Your task to perform on an android device: turn smart compose on in the gmail app Image 0: 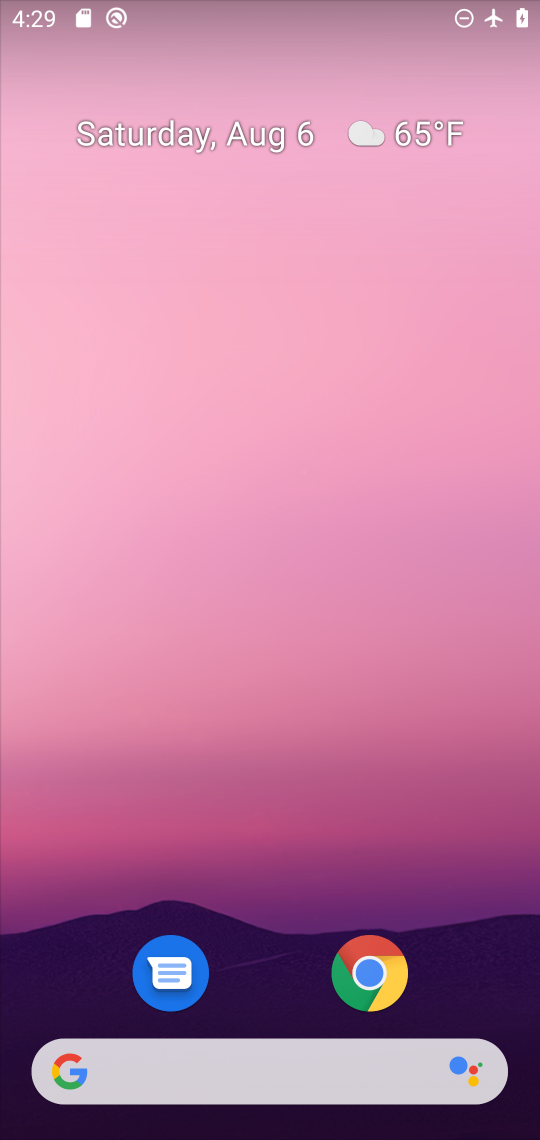
Step 0: drag from (309, 799) to (286, 66)
Your task to perform on an android device: turn smart compose on in the gmail app Image 1: 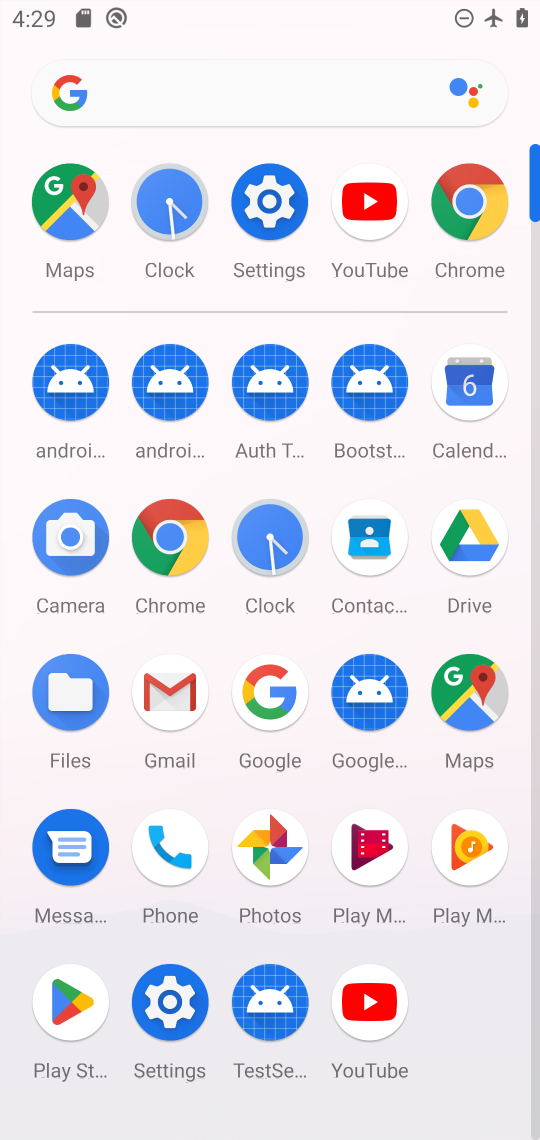
Step 1: click (181, 683)
Your task to perform on an android device: turn smart compose on in the gmail app Image 2: 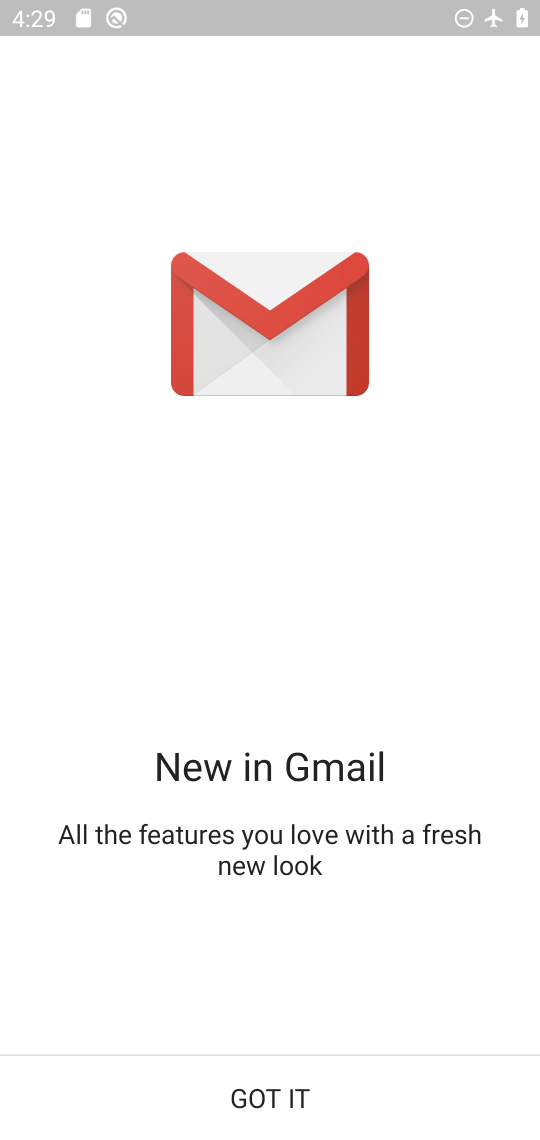
Step 2: click (283, 1093)
Your task to perform on an android device: turn smart compose on in the gmail app Image 3: 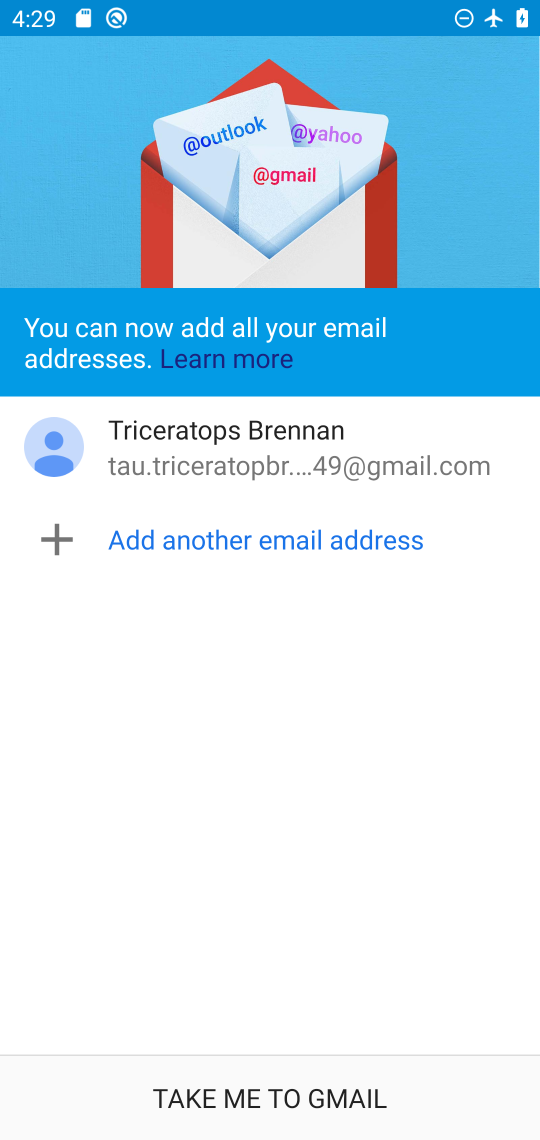
Step 3: click (282, 1084)
Your task to perform on an android device: turn smart compose on in the gmail app Image 4: 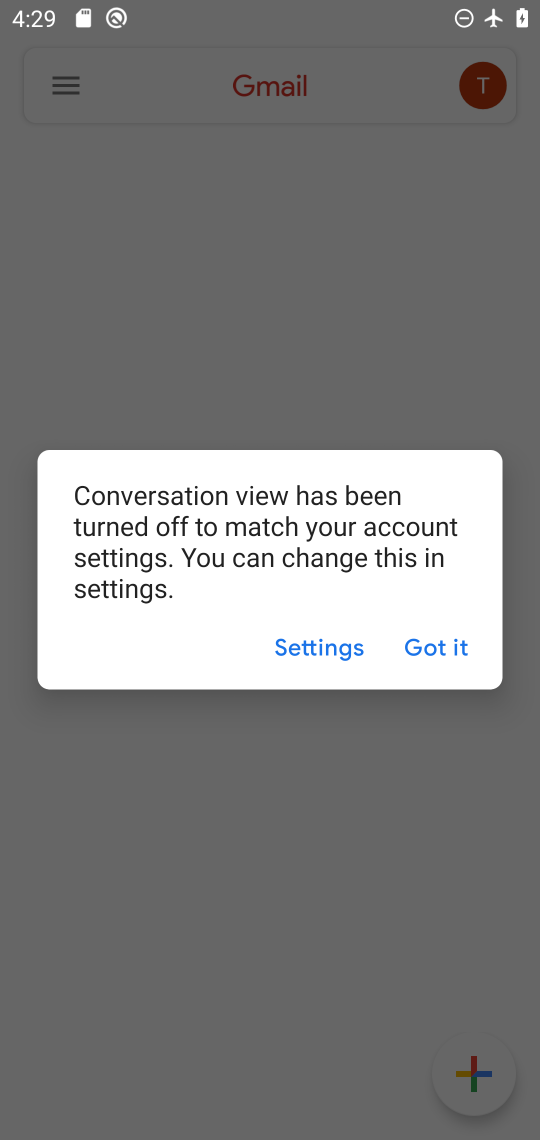
Step 4: click (429, 629)
Your task to perform on an android device: turn smart compose on in the gmail app Image 5: 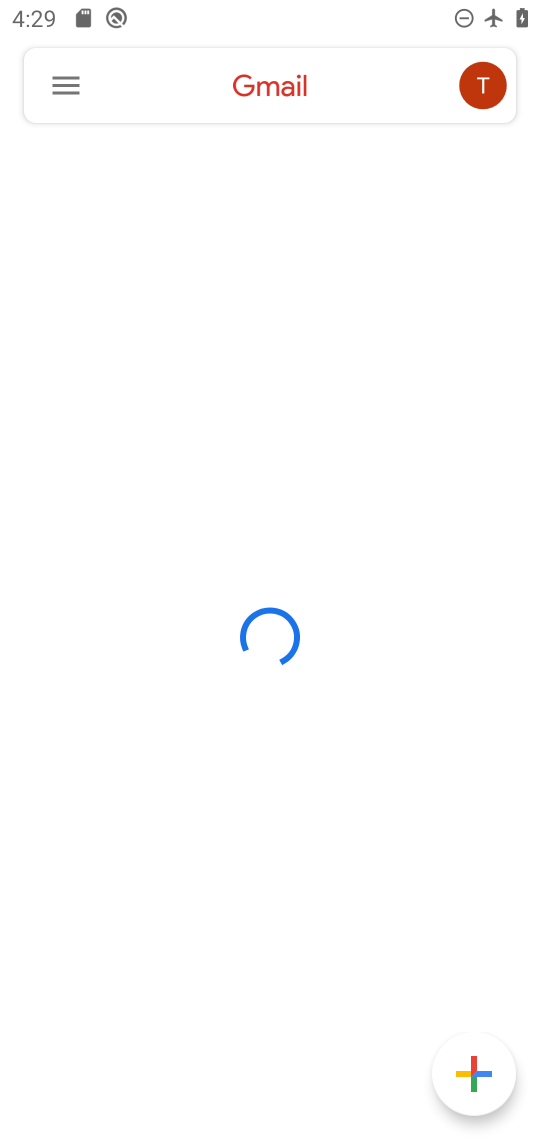
Step 5: click (65, 65)
Your task to perform on an android device: turn smart compose on in the gmail app Image 6: 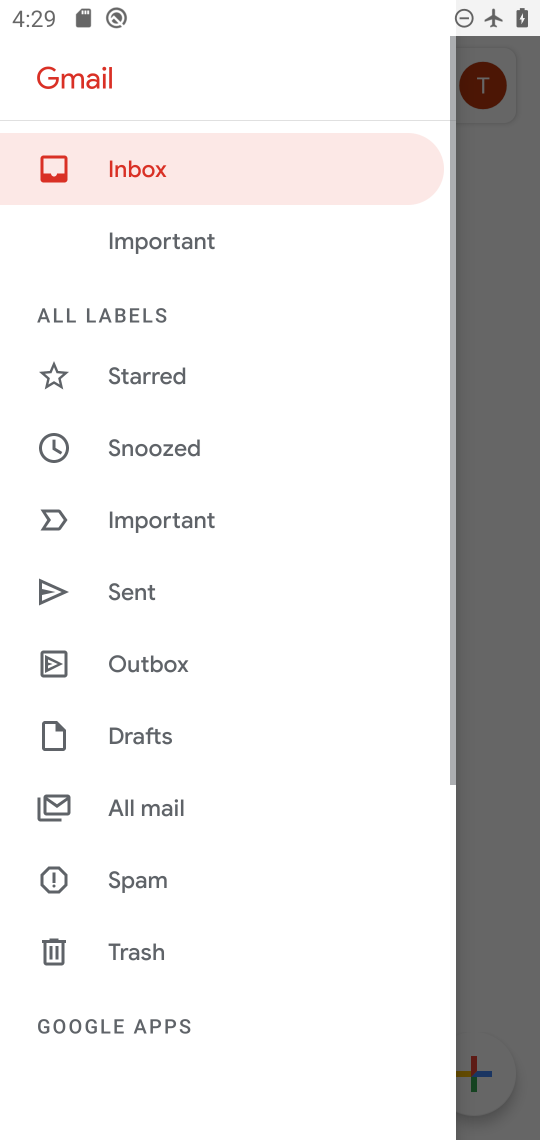
Step 6: click (157, 384)
Your task to perform on an android device: turn smart compose on in the gmail app Image 7: 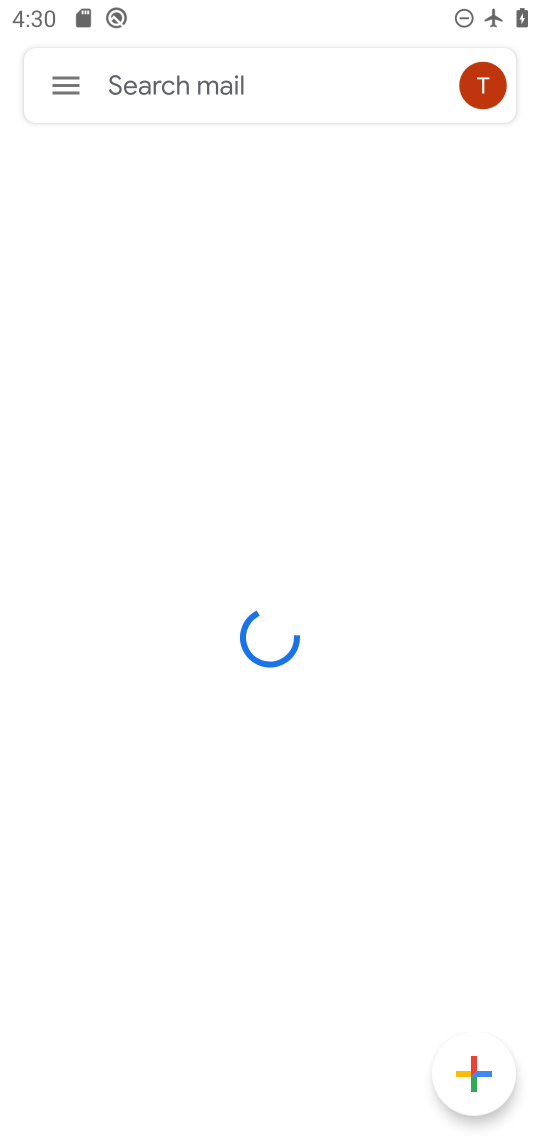
Step 7: click (64, 66)
Your task to perform on an android device: turn smart compose on in the gmail app Image 8: 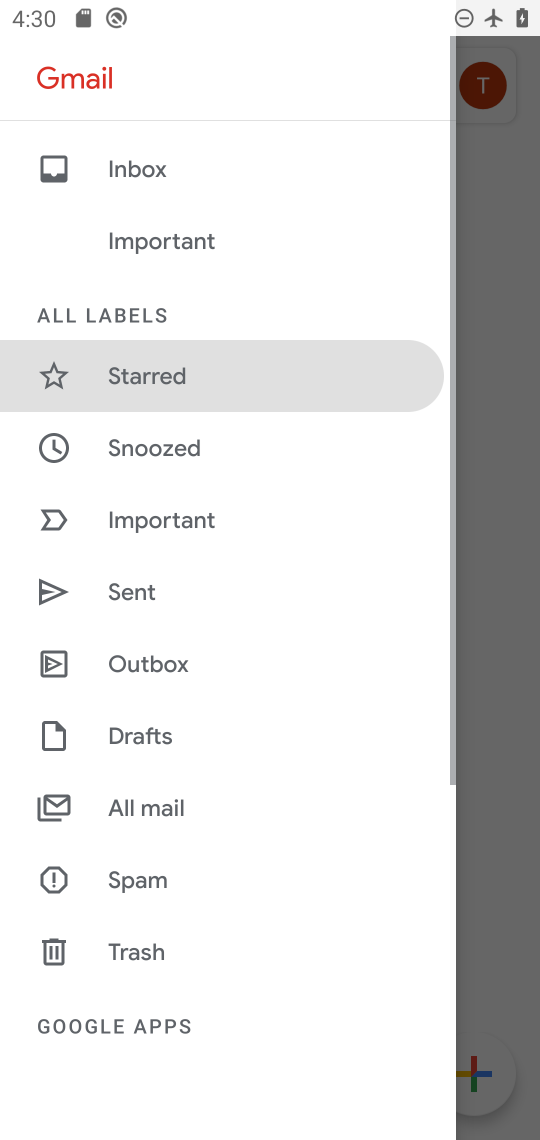
Step 8: drag from (134, 926) to (309, 400)
Your task to perform on an android device: turn smart compose on in the gmail app Image 9: 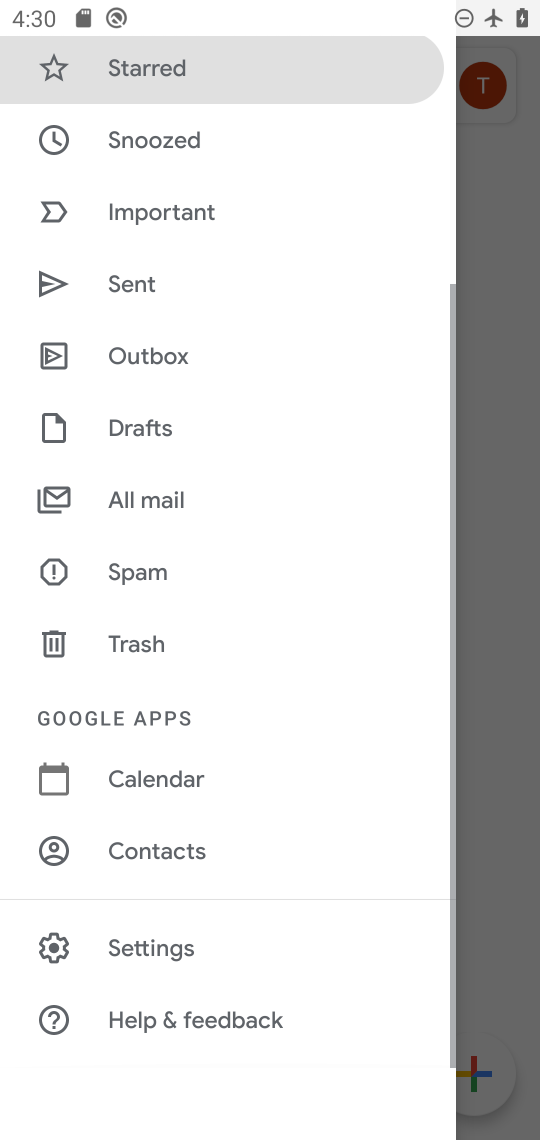
Step 9: click (127, 967)
Your task to perform on an android device: turn smart compose on in the gmail app Image 10: 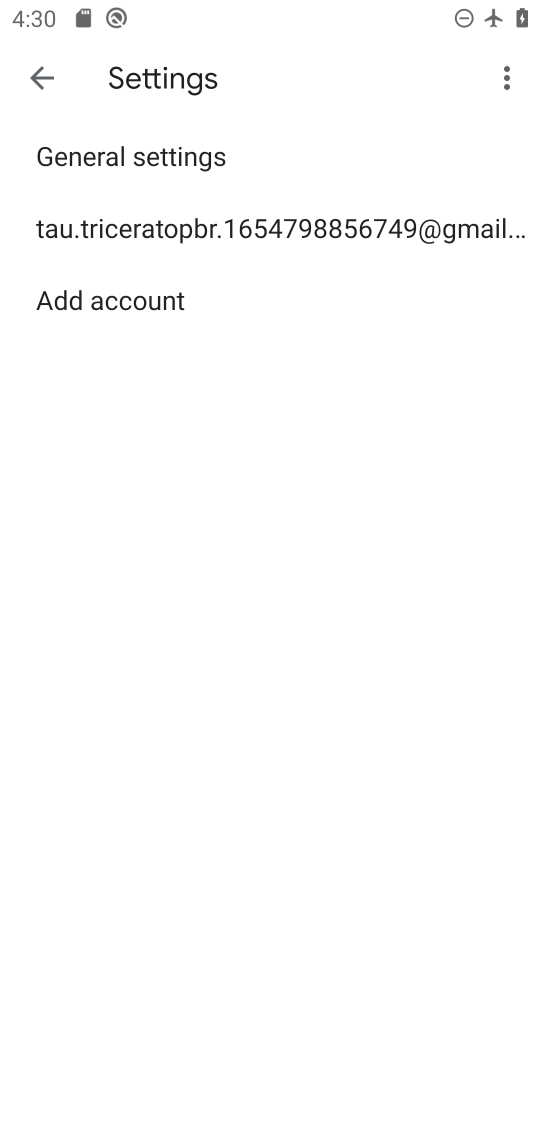
Step 10: click (293, 233)
Your task to perform on an android device: turn smart compose on in the gmail app Image 11: 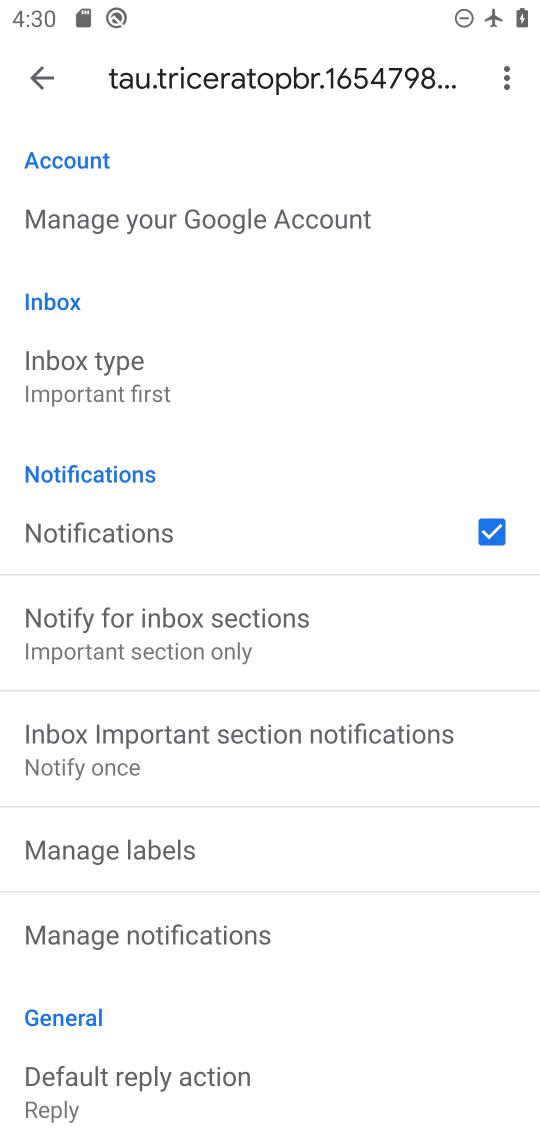
Step 11: task complete